Your task to perform on an android device: Open Amazon Image 0: 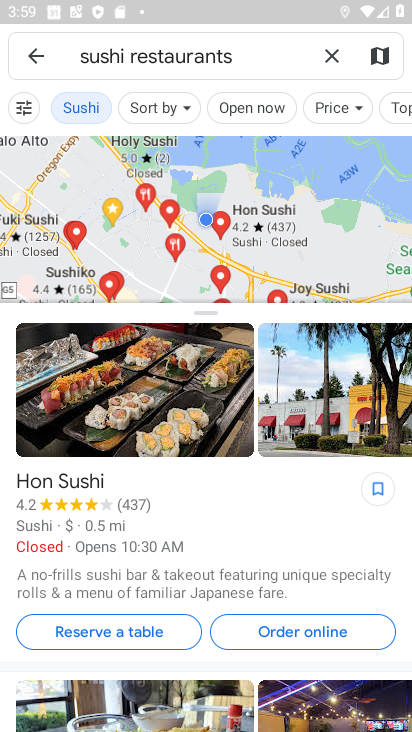
Step 0: press home button
Your task to perform on an android device: Open Amazon Image 1: 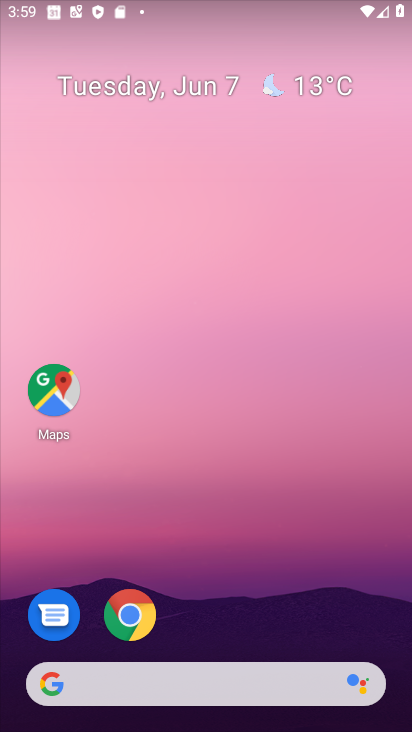
Step 1: click (117, 612)
Your task to perform on an android device: Open Amazon Image 2: 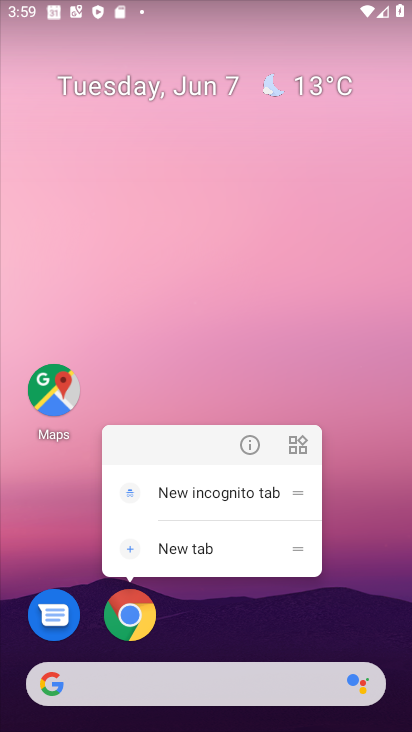
Step 2: click (117, 613)
Your task to perform on an android device: Open Amazon Image 3: 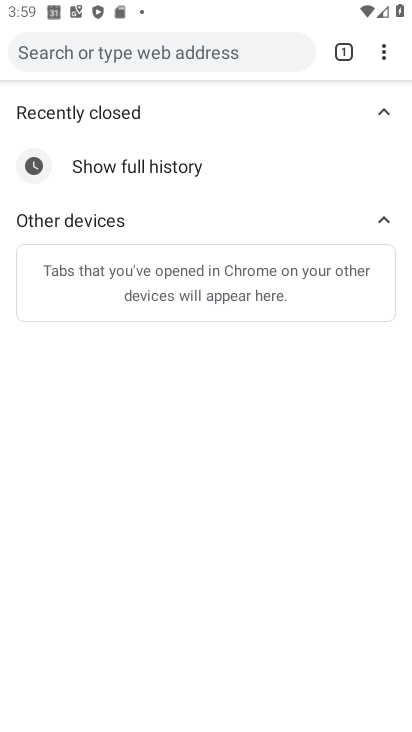
Step 3: click (206, 49)
Your task to perform on an android device: Open Amazon Image 4: 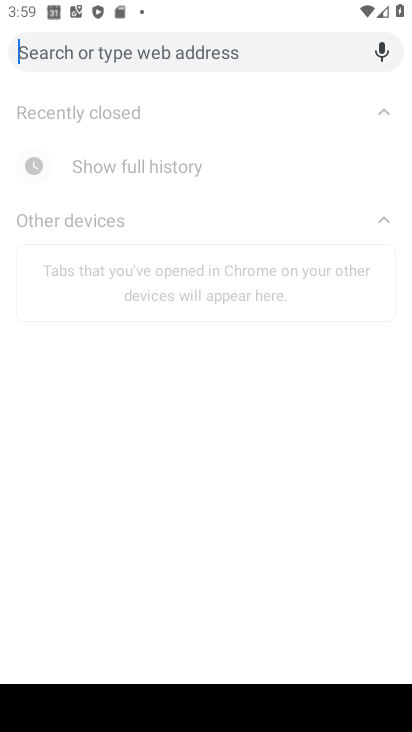
Step 4: type "Amazon"
Your task to perform on an android device: Open Amazon Image 5: 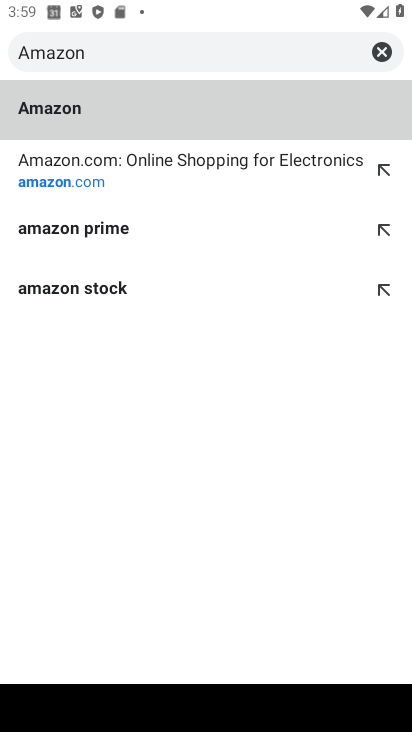
Step 5: click (98, 159)
Your task to perform on an android device: Open Amazon Image 6: 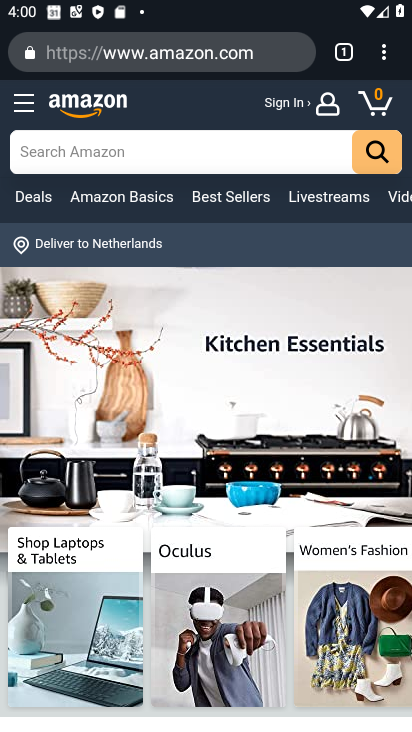
Step 6: task complete